Your task to perform on an android device: When is my next appointment? Image 0: 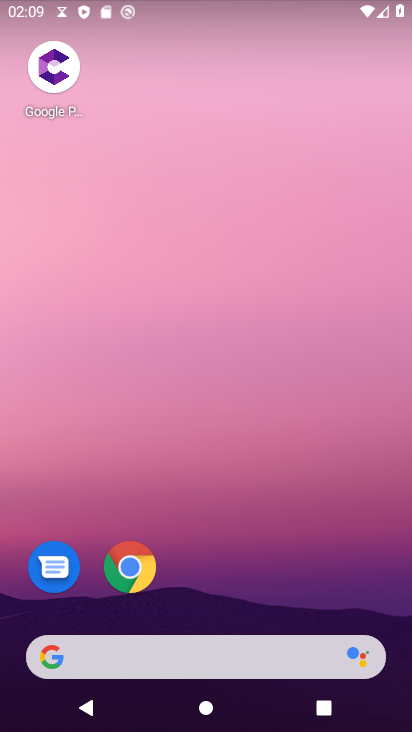
Step 0: drag from (189, 650) to (304, 83)
Your task to perform on an android device: When is my next appointment? Image 1: 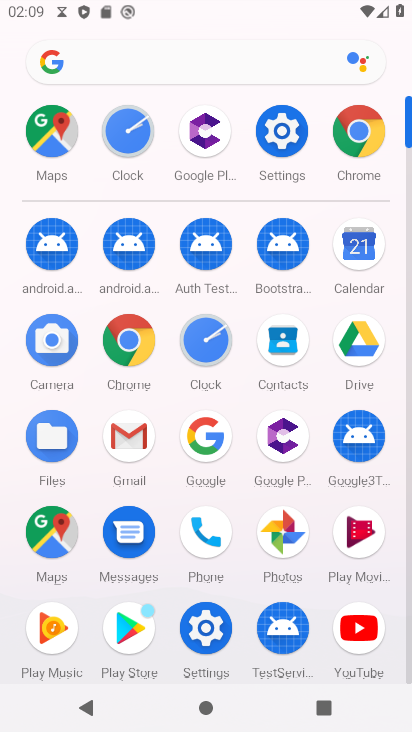
Step 1: click (363, 257)
Your task to perform on an android device: When is my next appointment? Image 2: 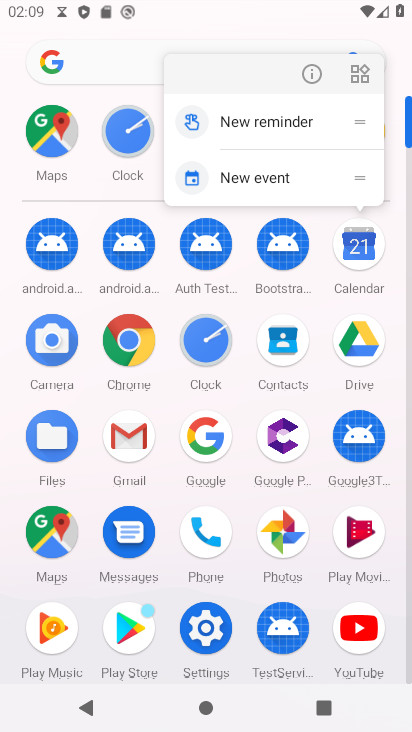
Step 2: click (358, 256)
Your task to perform on an android device: When is my next appointment? Image 3: 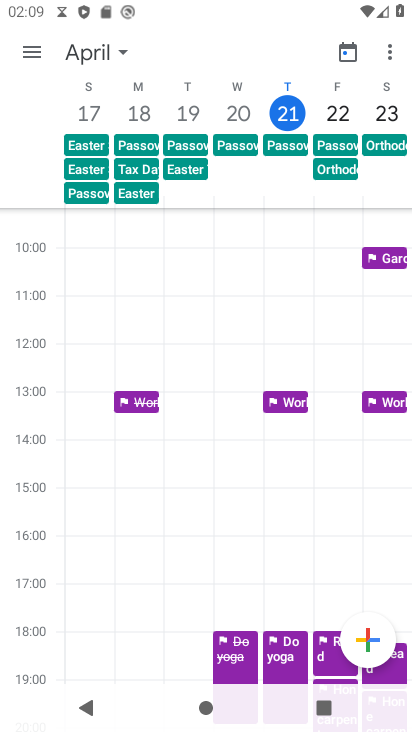
Step 3: click (76, 50)
Your task to perform on an android device: When is my next appointment? Image 4: 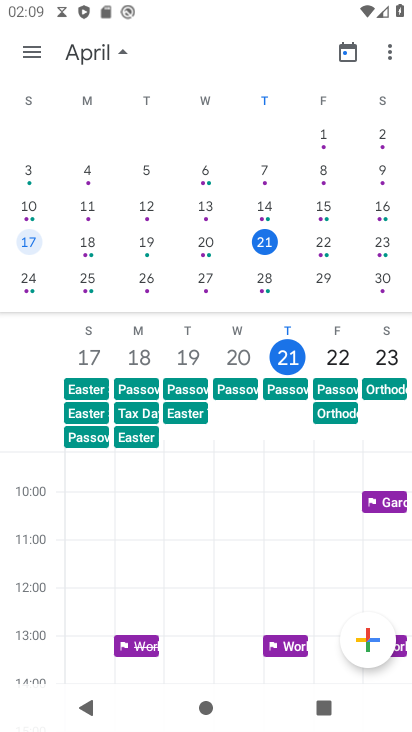
Step 4: click (268, 250)
Your task to perform on an android device: When is my next appointment? Image 5: 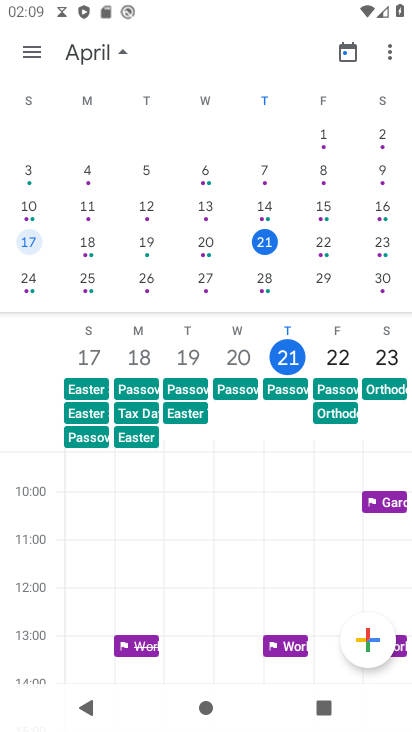
Step 5: click (268, 245)
Your task to perform on an android device: When is my next appointment? Image 6: 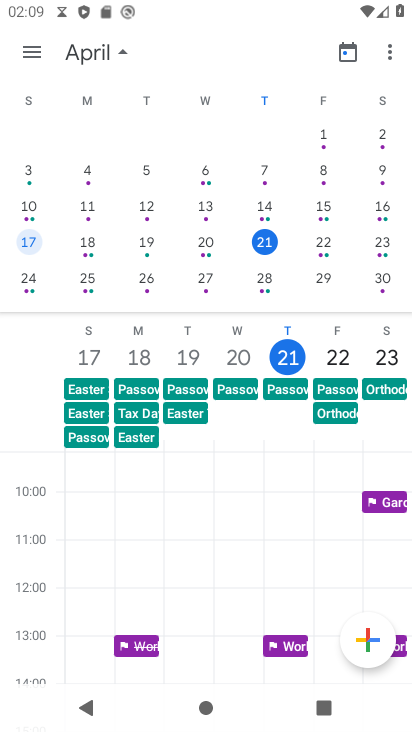
Step 6: click (269, 240)
Your task to perform on an android device: When is my next appointment? Image 7: 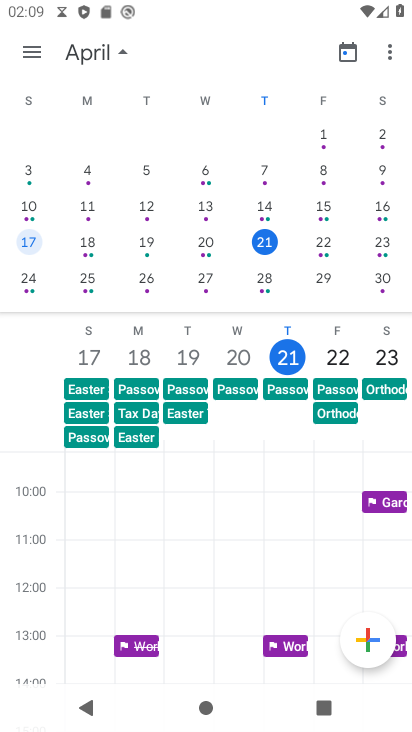
Step 7: click (264, 243)
Your task to perform on an android device: When is my next appointment? Image 8: 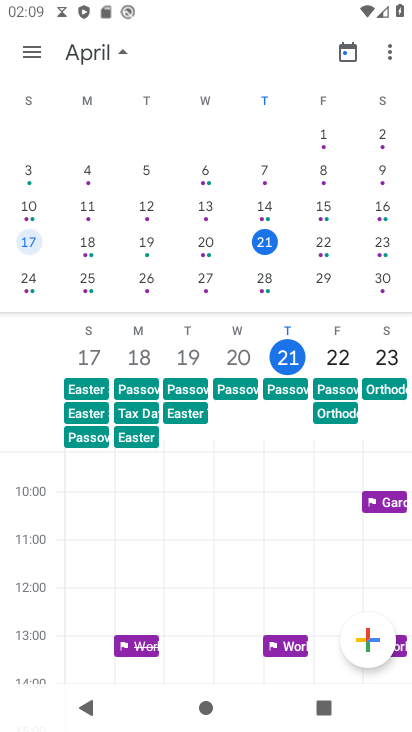
Step 8: click (325, 241)
Your task to perform on an android device: When is my next appointment? Image 9: 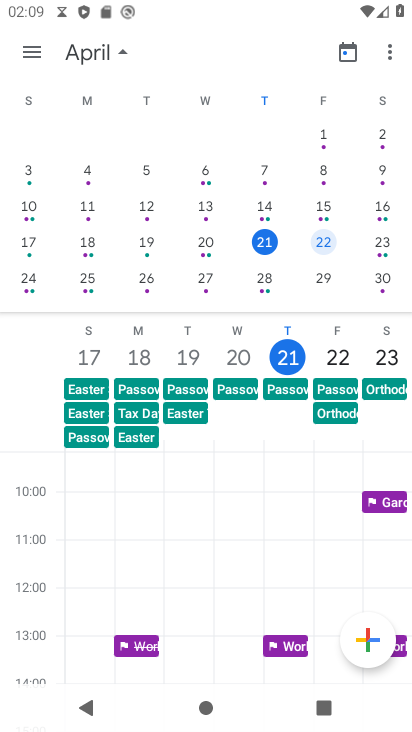
Step 9: click (270, 243)
Your task to perform on an android device: When is my next appointment? Image 10: 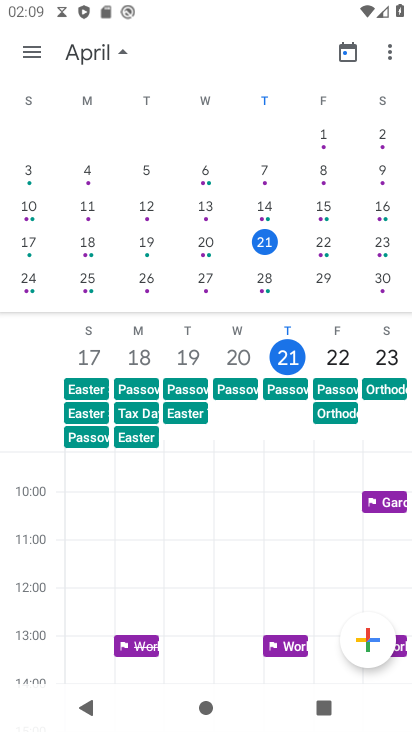
Step 10: click (34, 47)
Your task to perform on an android device: When is my next appointment? Image 11: 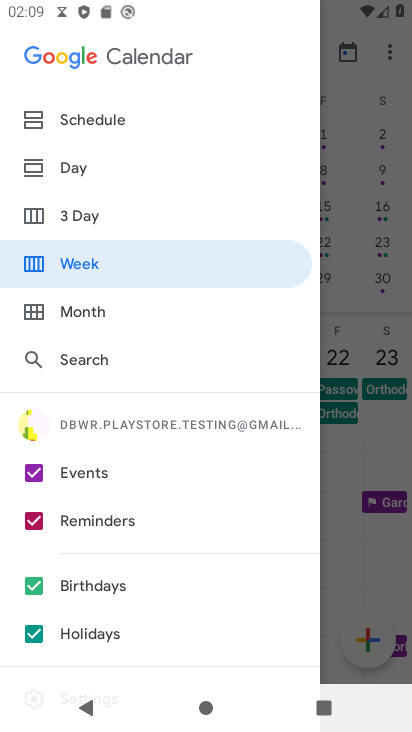
Step 11: click (110, 119)
Your task to perform on an android device: When is my next appointment? Image 12: 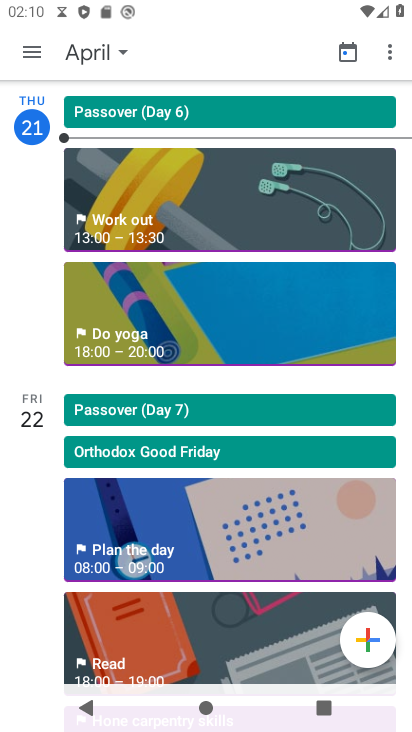
Step 12: drag from (176, 439) to (283, 93)
Your task to perform on an android device: When is my next appointment? Image 13: 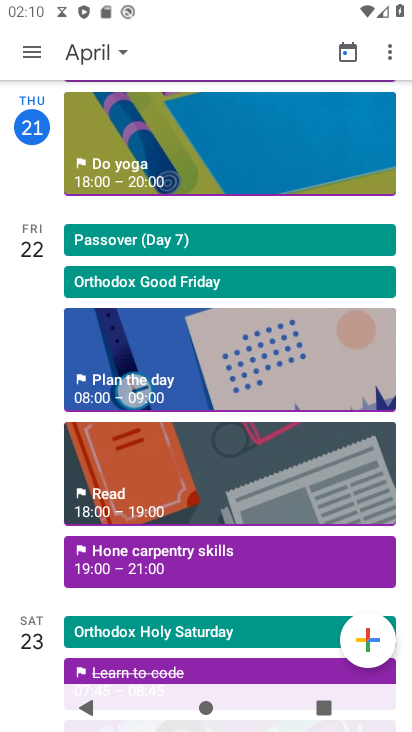
Step 13: click (150, 559)
Your task to perform on an android device: When is my next appointment? Image 14: 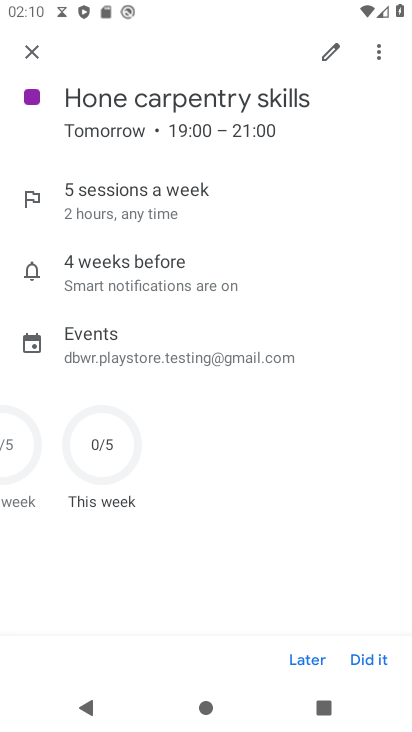
Step 14: task complete